Your task to perform on an android device: Go to CNN.com Image 0: 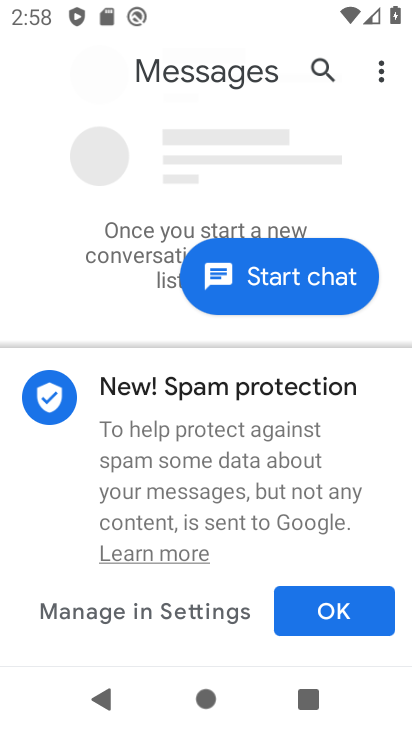
Step 0: press home button
Your task to perform on an android device: Go to CNN.com Image 1: 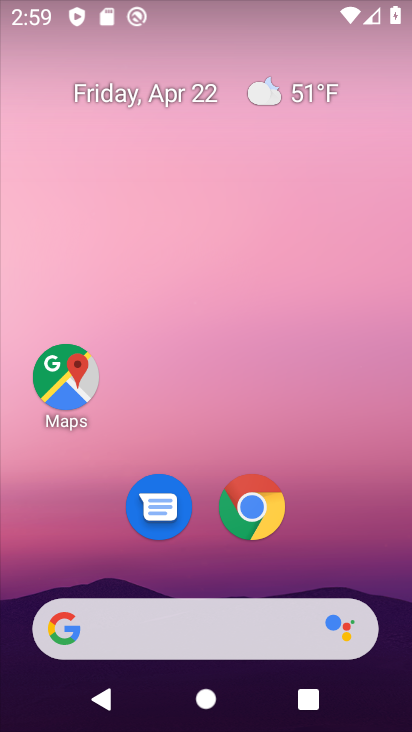
Step 1: click (258, 496)
Your task to perform on an android device: Go to CNN.com Image 2: 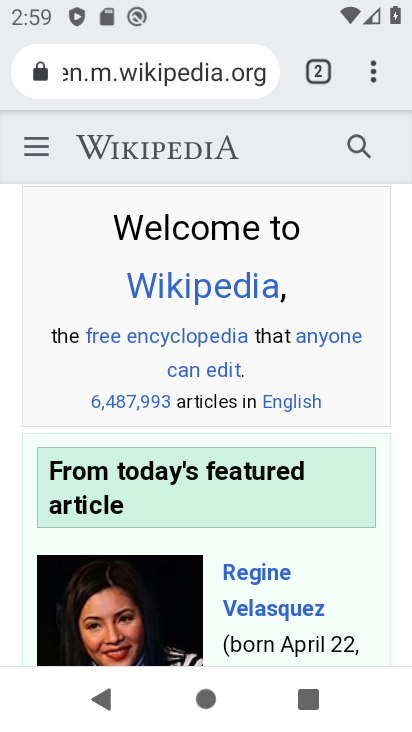
Step 2: click (304, 66)
Your task to perform on an android device: Go to CNN.com Image 3: 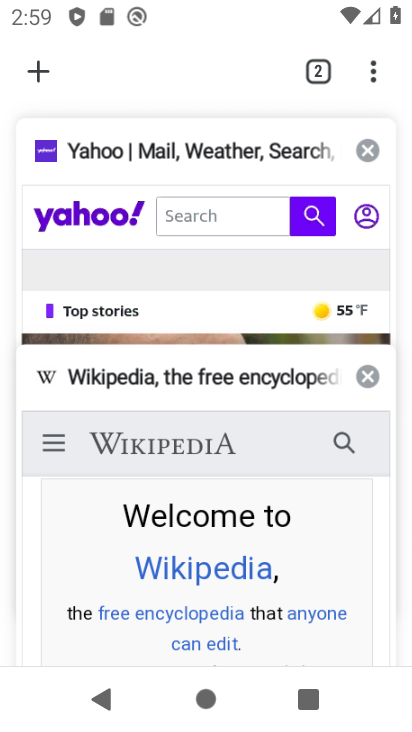
Step 3: click (42, 70)
Your task to perform on an android device: Go to CNN.com Image 4: 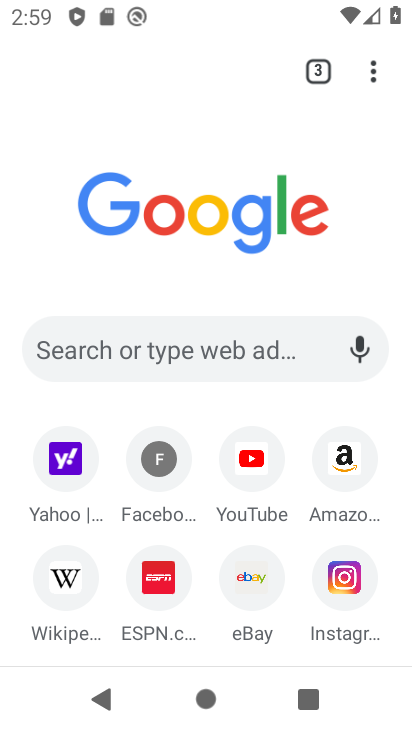
Step 4: click (213, 357)
Your task to perform on an android device: Go to CNN.com Image 5: 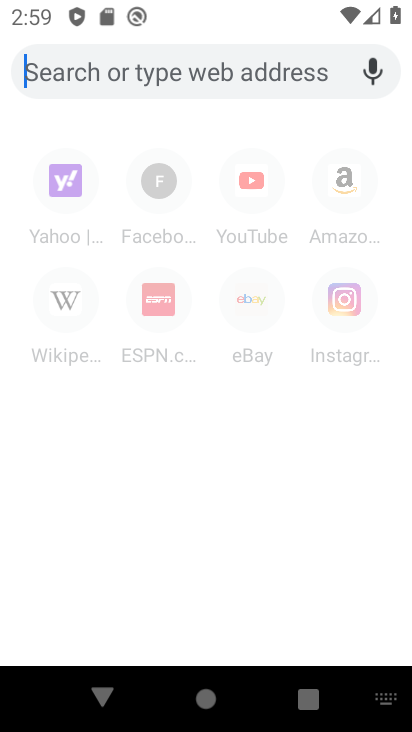
Step 5: type "cnn"
Your task to perform on an android device: Go to CNN.com Image 6: 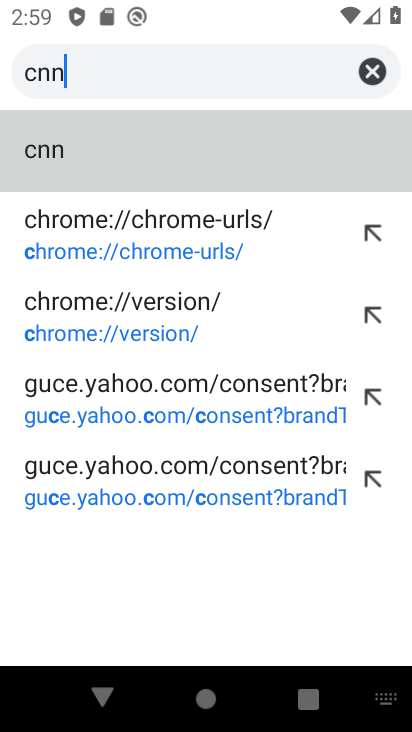
Step 6: type ""
Your task to perform on an android device: Go to CNN.com Image 7: 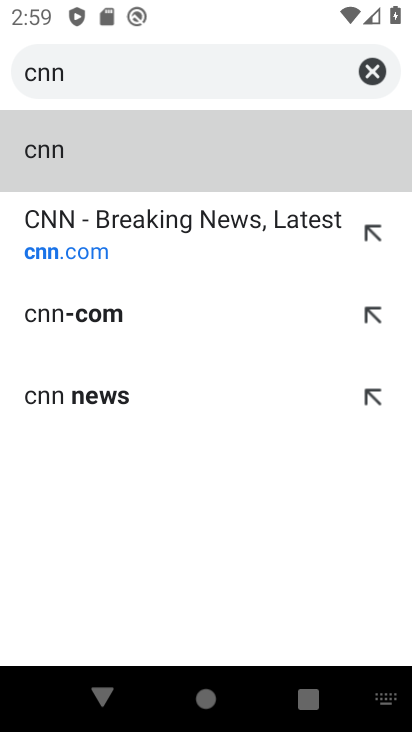
Step 7: click (117, 251)
Your task to perform on an android device: Go to CNN.com Image 8: 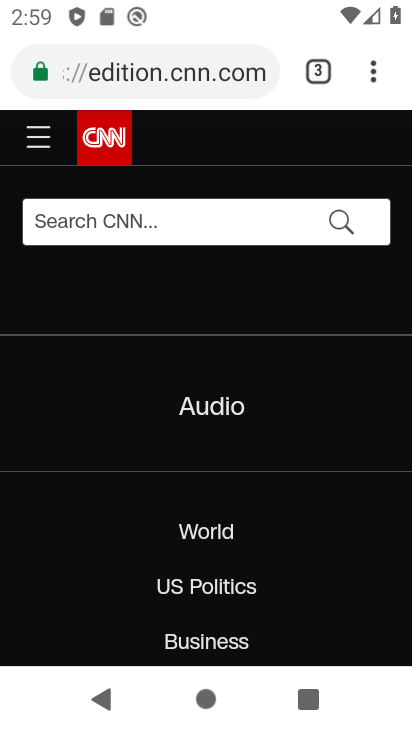
Step 8: task complete